Your task to perform on an android device: Go to Maps Image 0: 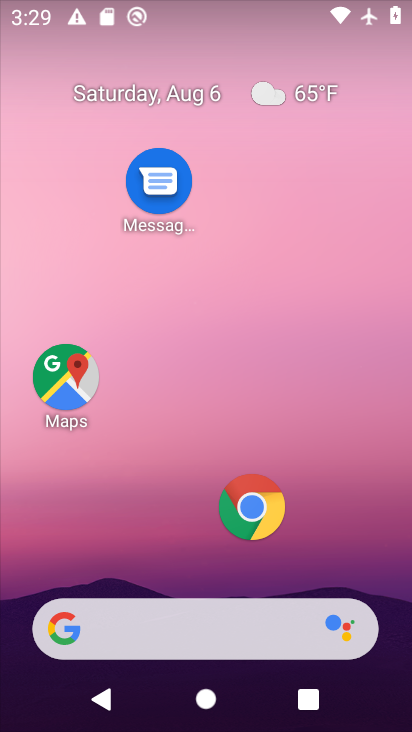
Step 0: click (60, 382)
Your task to perform on an android device: Go to Maps Image 1: 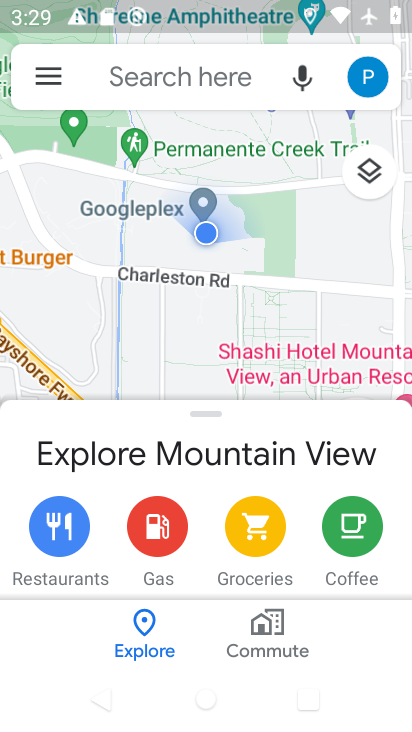
Step 1: task complete